Your task to perform on an android device: turn off notifications in google photos Image 0: 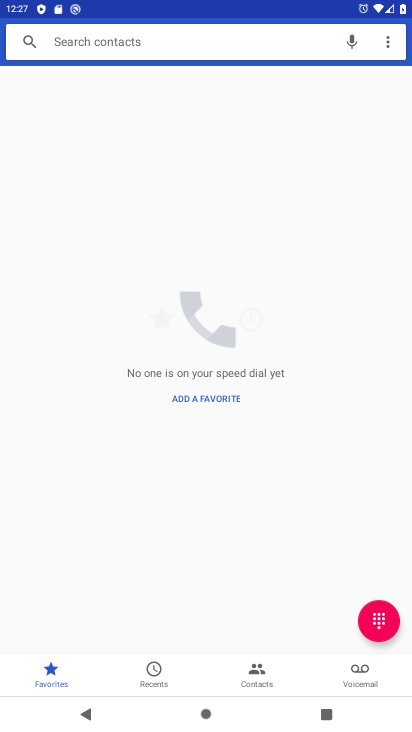
Step 0: press home button
Your task to perform on an android device: turn off notifications in google photos Image 1: 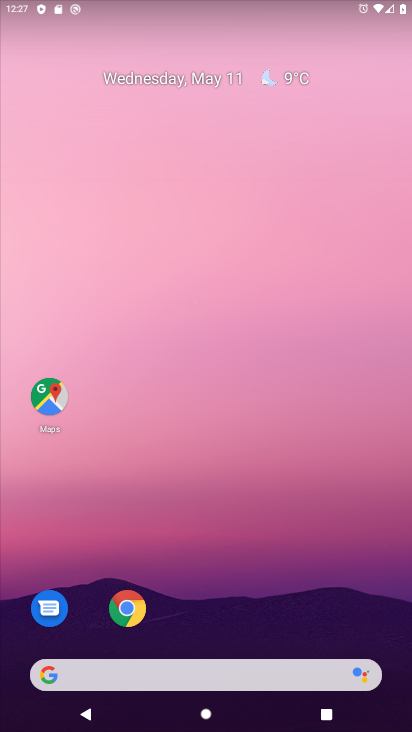
Step 1: drag from (251, 625) to (197, 157)
Your task to perform on an android device: turn off notifications in google photos Image 2: 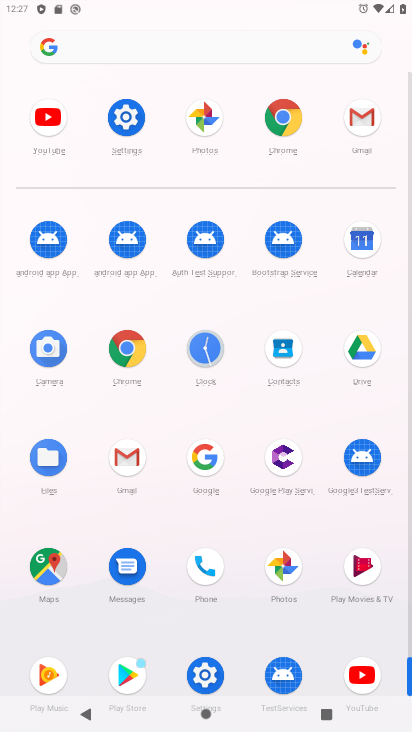
Step 2: click (291, 584)
Your task to perform on an android device: turn off notifications in google photos Image 3: 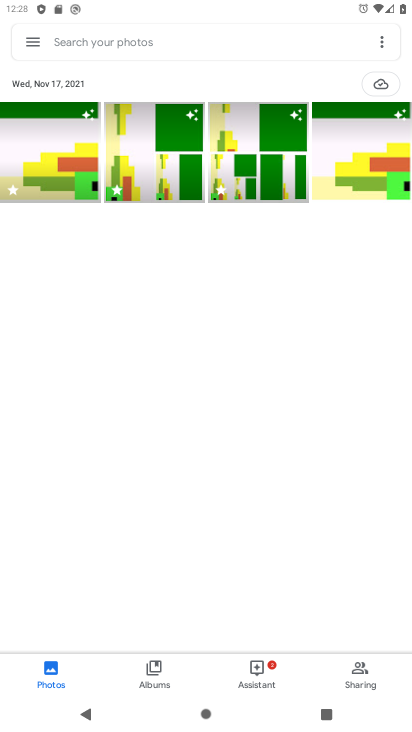
Step 3: click (28, 52)
Your task to perform on an android device: turn off notifications in google photos Image 4: 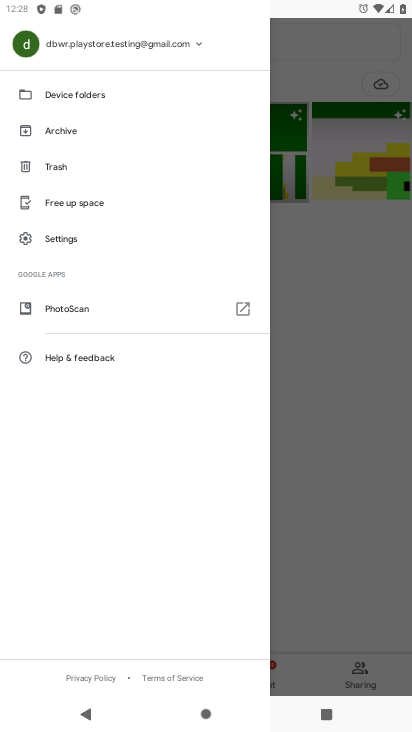
Step 4: click (48, 233)
Your task to perform on an android device: turn off notifications in google photos Image 5: 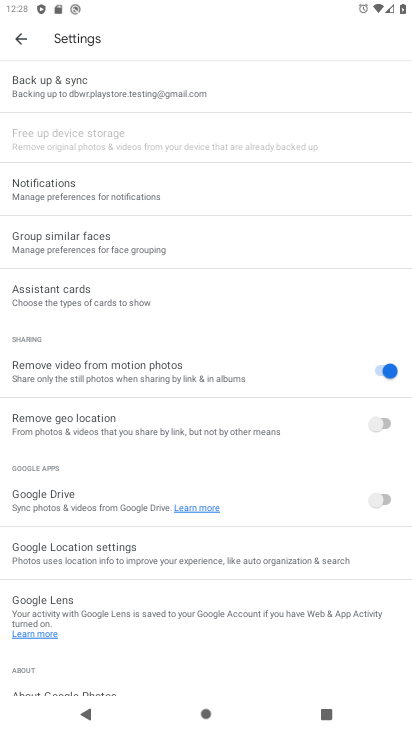
Step 5: click (128, 200)
Your task to perform on an android device: turn off notifications in google photos Image 6: 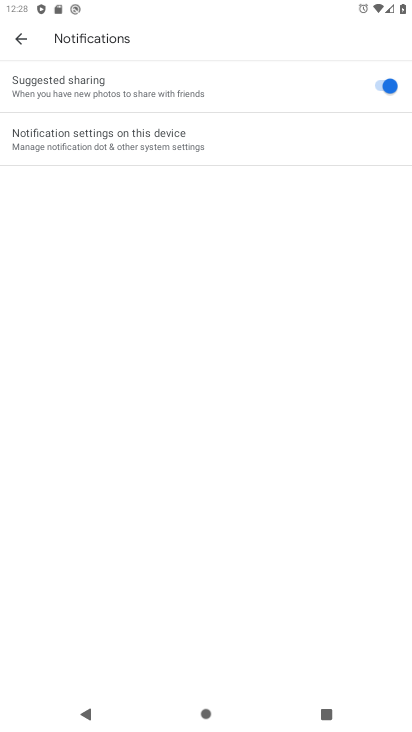
Step 6: click (375, 85)
Your task to perform on an android device: turn off notifications in google photos Image 7: 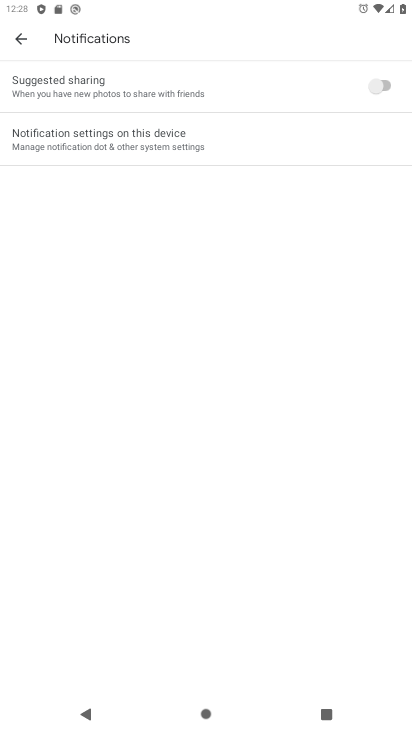
Step 7: task complete